Your task to perform on an android device: see tabs open on other devices in the chrome app Image 0: 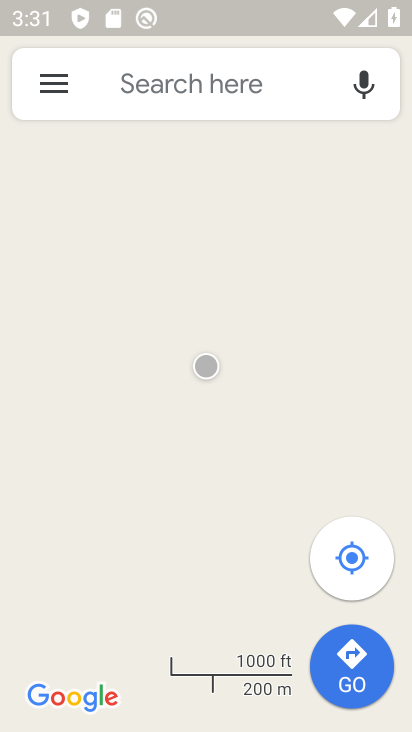
Step 0: press home button
Your task to perform on an android device: see tabs open on other devices in the chrome app Image 1: 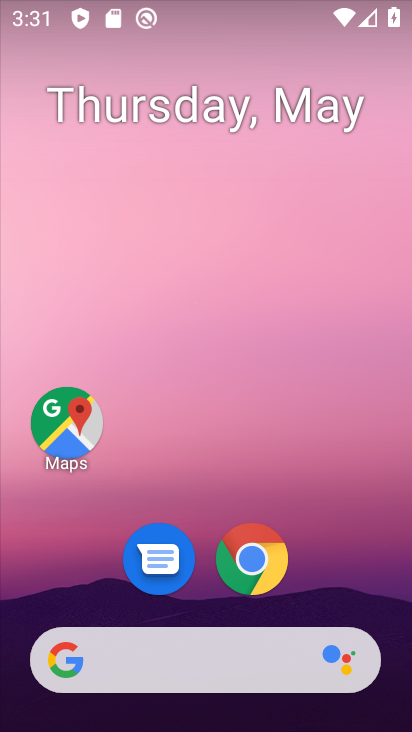
Step 1: click (251, 568)
Your task to perform on an android device: see tabs open on other devices in the chrome app Image 2: 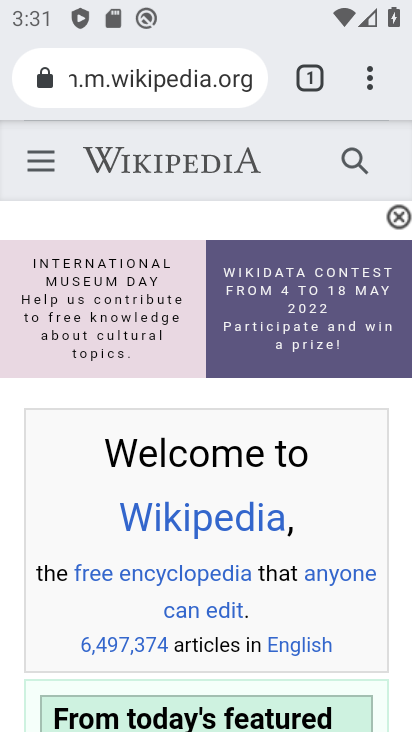
Step 2: drag from (371, 81) to (193, 378)
Your task to perform on an android device: see tabs open on other devices in the chrome app Image 3: 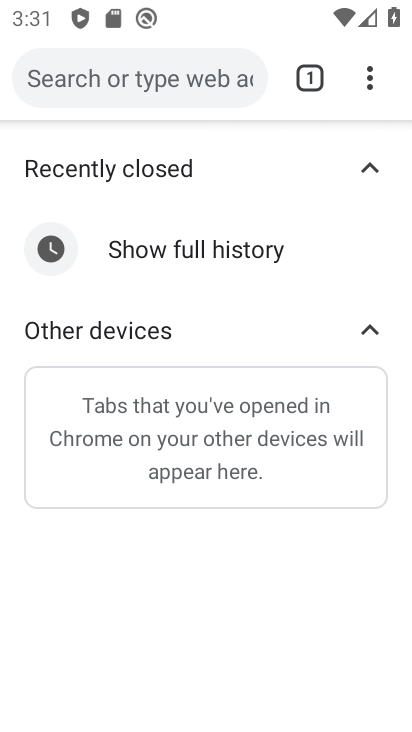
Step 3: click (195, 267)
Your task to perform on an android device: see tabs open on other devices in the chrome app Image 4: 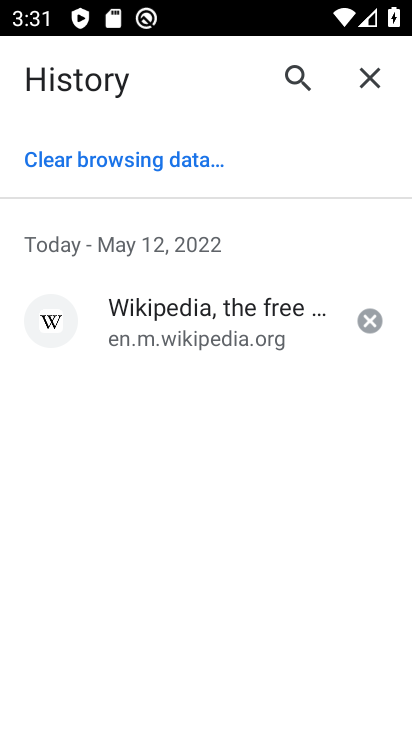
Step 4: task complete